Your task to perform on an android device: turn off data saver in the chrome app Image 0: 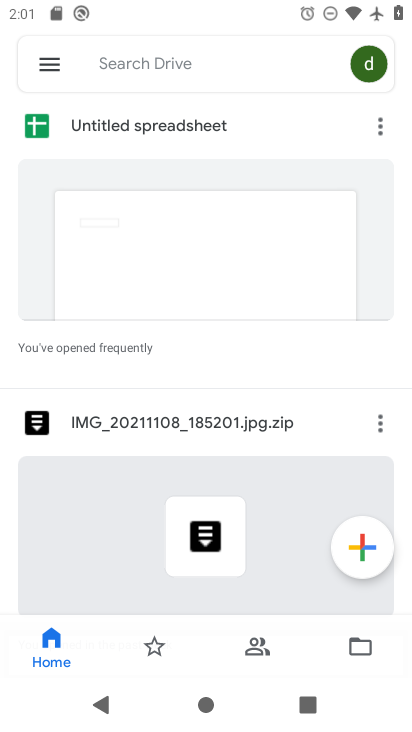
Step 0: press home button
Your task to perform on an android device: turn off data saver in the chrome app Image 1: 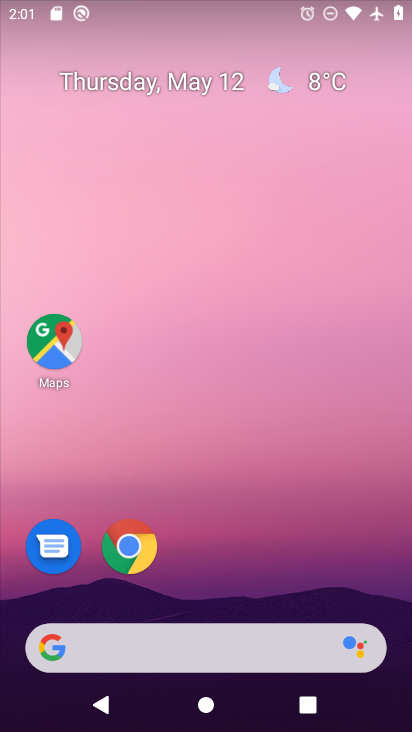
Step 1: drag from (167, 648) to (305, 265)
Your task to perform on an android device: turn off data saver in the chrome app Image 2: 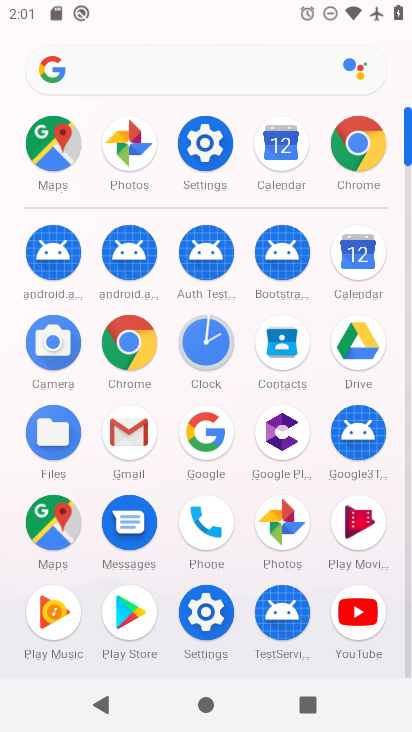
Step 2: click (363, 154)
Your task to perform on an android device: turn off data saver in the chrome app Image 3: 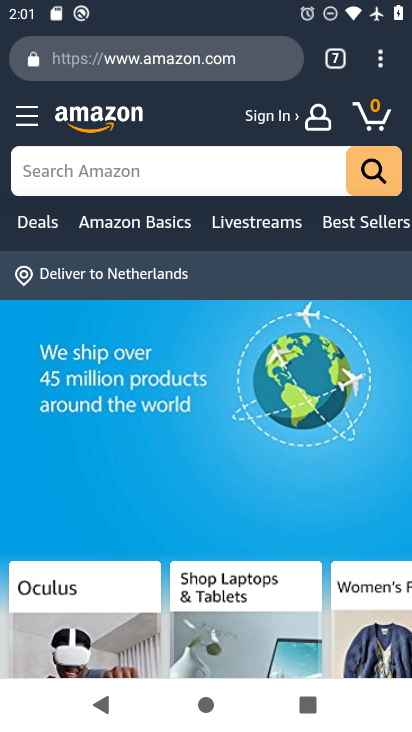
Step 3: drag from (383, 68) to (266, 562)
Your task to perform on an android device: turn off data saver in the chrome app Image 4: 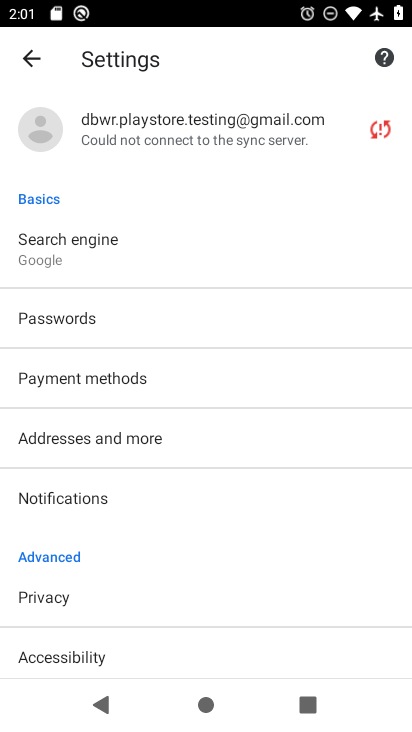
Step 4: drag from (220, 537) to (308, 262)
Your task to perform on an android device: turn off data saver in the chrome app Image 5: 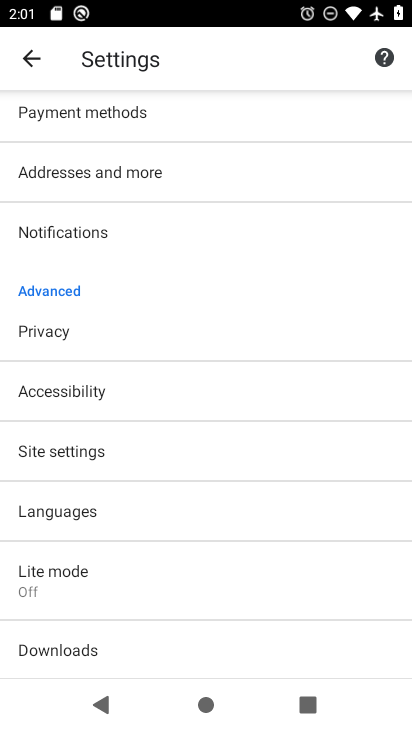
Step 5: click (69, 574)
Your task to perform on an android device: turn off data saver in the chrome app Image 6: 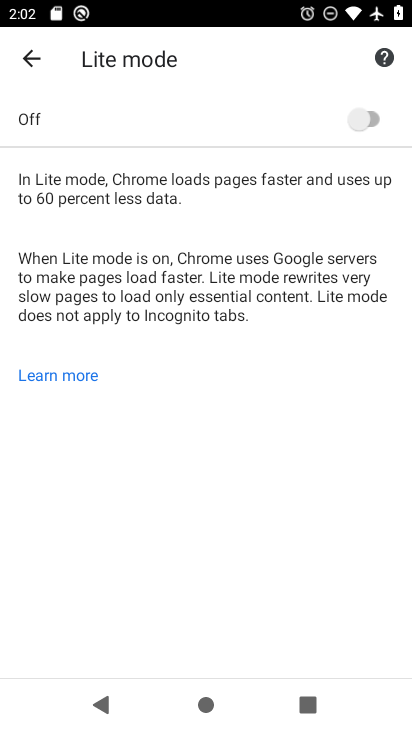
Step 6: task complete